Your task to perform on an android device: open device folders in google photos Image 0: 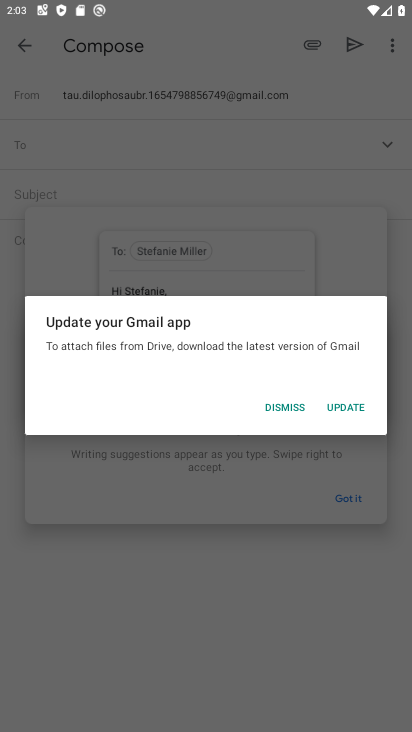
Step 0: press home button
Your task to perform on an android device: open device folders in google photos Image 1: 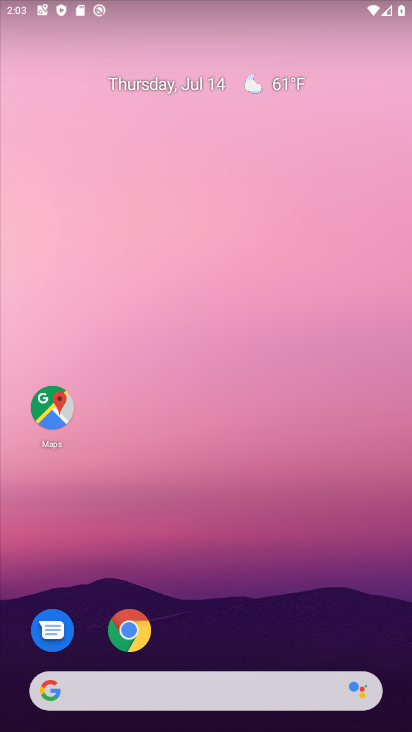
Step 1: drag from (178, 656) to (243, 337)
Your task to perform on an android device: open device folders in google photos Image 2: 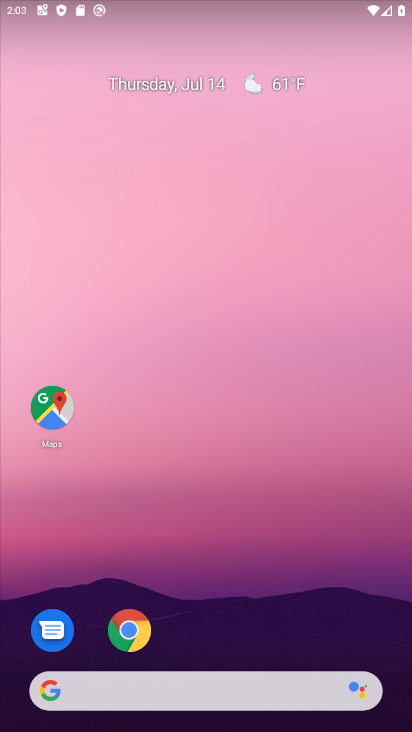
Step 2: drag from (195, 683) to (266, 71)
Your task to perform on an android device: open device folders in google photos Image 3: 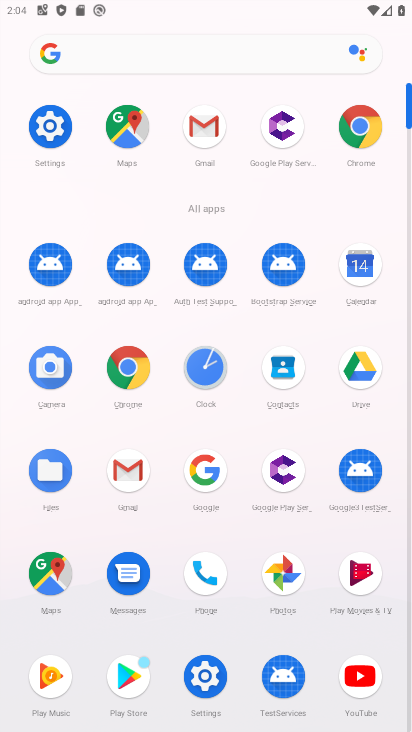
Step 3: click (208, 470)
Your task to perform on an android device: open device folders in google photos Image 4: 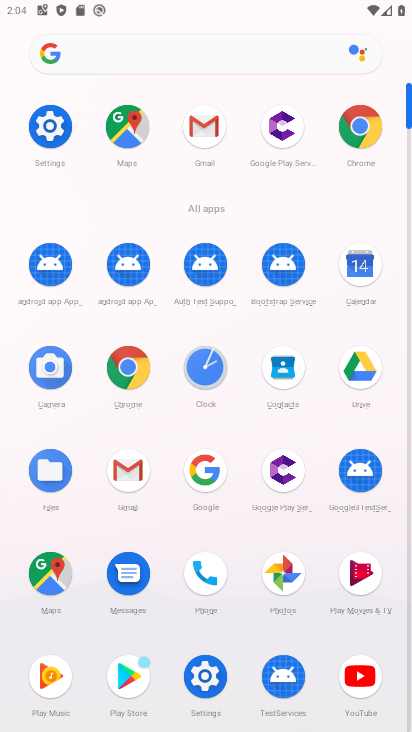
Step 4: click (312, 322)
Your task to perform on an android device: open device folders in google photos Image 5: 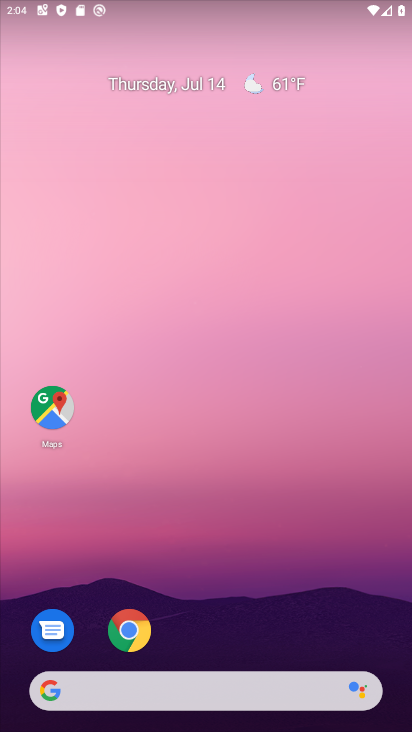
Step 5: drag from (216, 689) to (251, 213)
Your task to perform on an android device: open device folders in google photos Image 6: 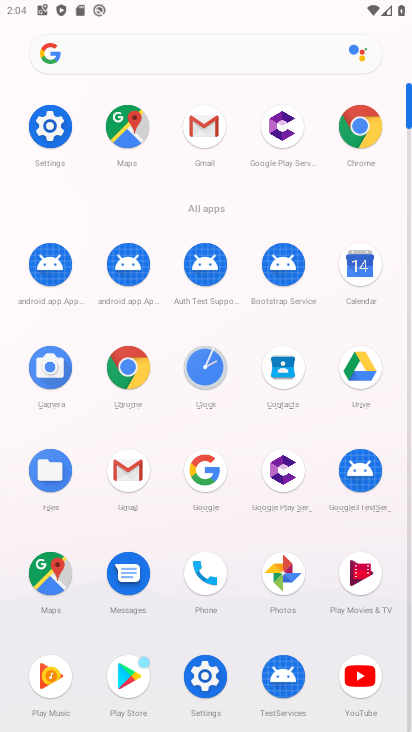
Step 6: click (287, 576)
Your task to perform on an android device: open device folders in google photos Image 7: 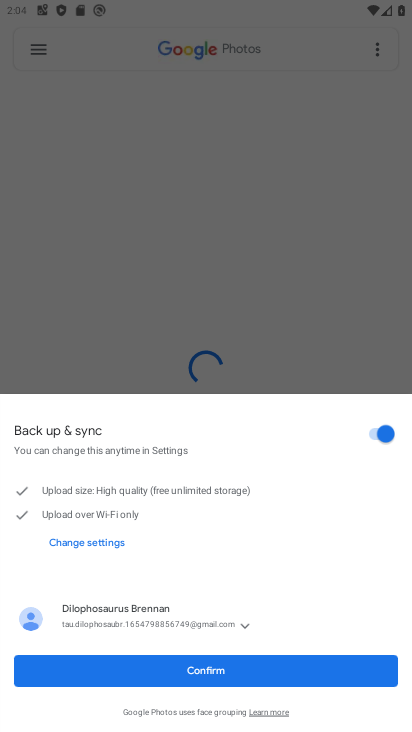
Step 7: click (199, 674)
Your task to perform on an android device: open device folders in google photos Image 8: 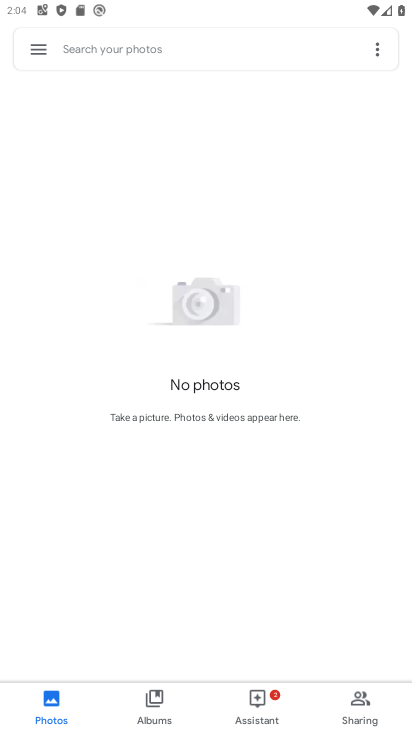
Step 8: click (37, 53)
Your task to perform on an android device: open device folders in google photos Image 9: 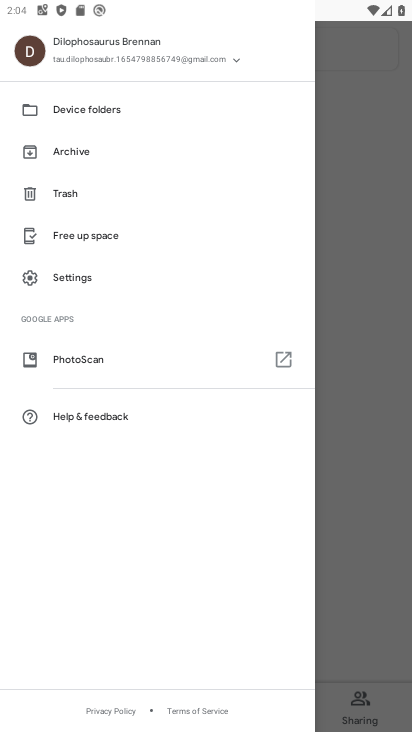
Step 9: click (69, 100)
Your task to perform on an android device: open device folders in google photos Image 10: 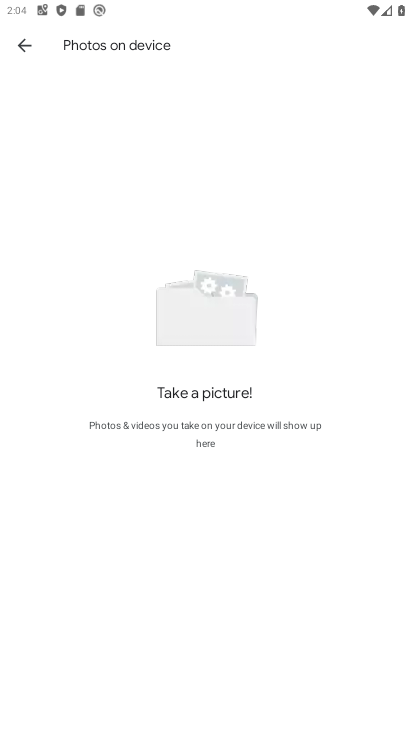
Step 10: task complete